Your task to perform on an android device: Go to Android settings Image 0: 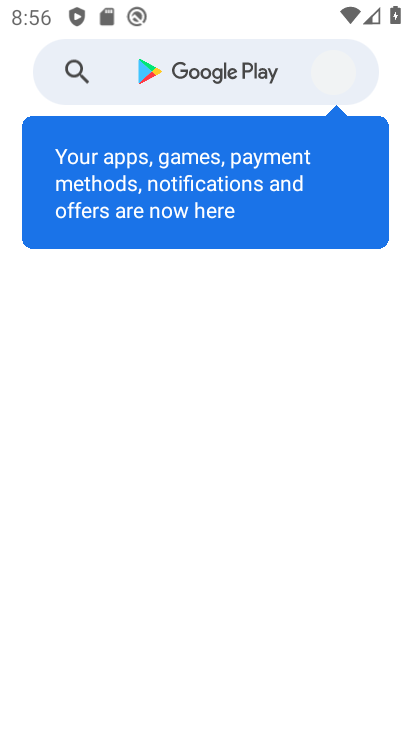
Step 0: press home button
Your task to perform on an android device: Go to Android settings Image 1: 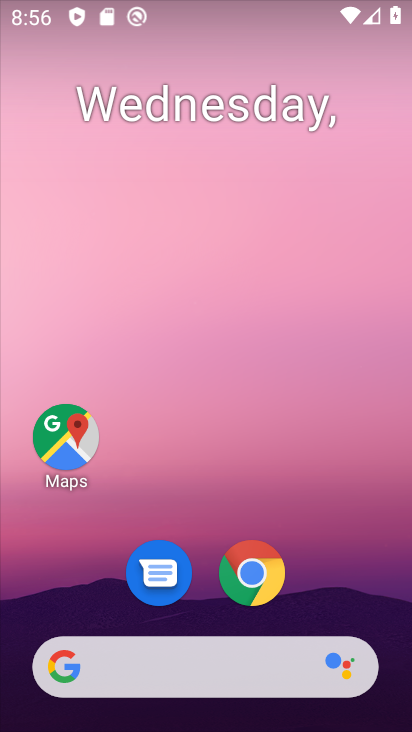
Step 1: drag from (77, 606) to (183, 126)
Your task to perform on an android device: Go to Android settings Image 2: 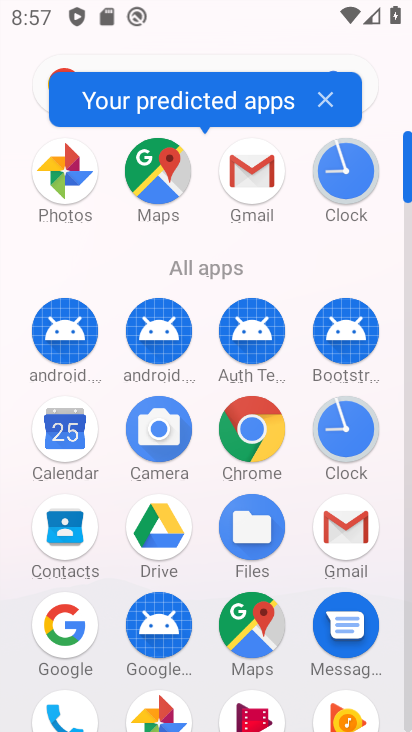
Step 2: drag from (192, 721) to (241, 426)
Your task to perform on an android device: Go to Android settings Image 3: 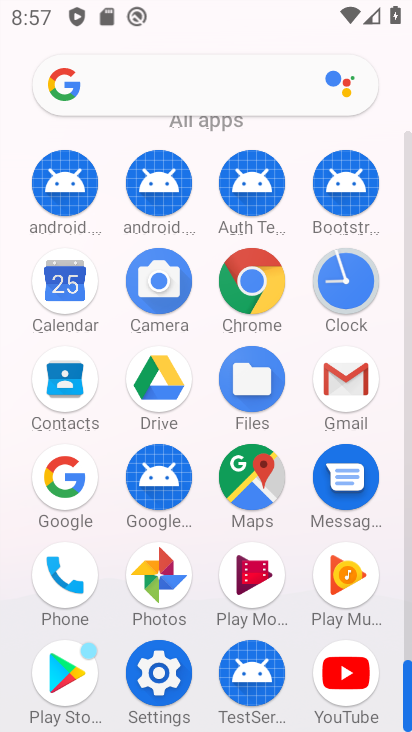
Step 3: click (158, 666)
Your task to perform on an android device: Go to Android settings Image 4: 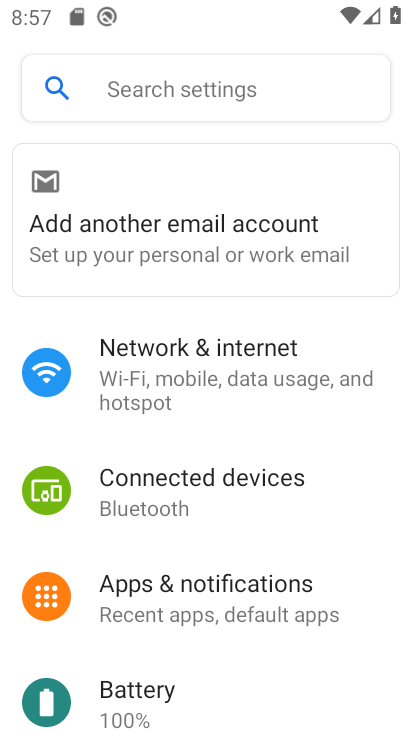
Step 4: task complete